Your task to perform on an android device: Clear the cart on walmart. Add "acer nitro" to the cart on walmart Image 0: 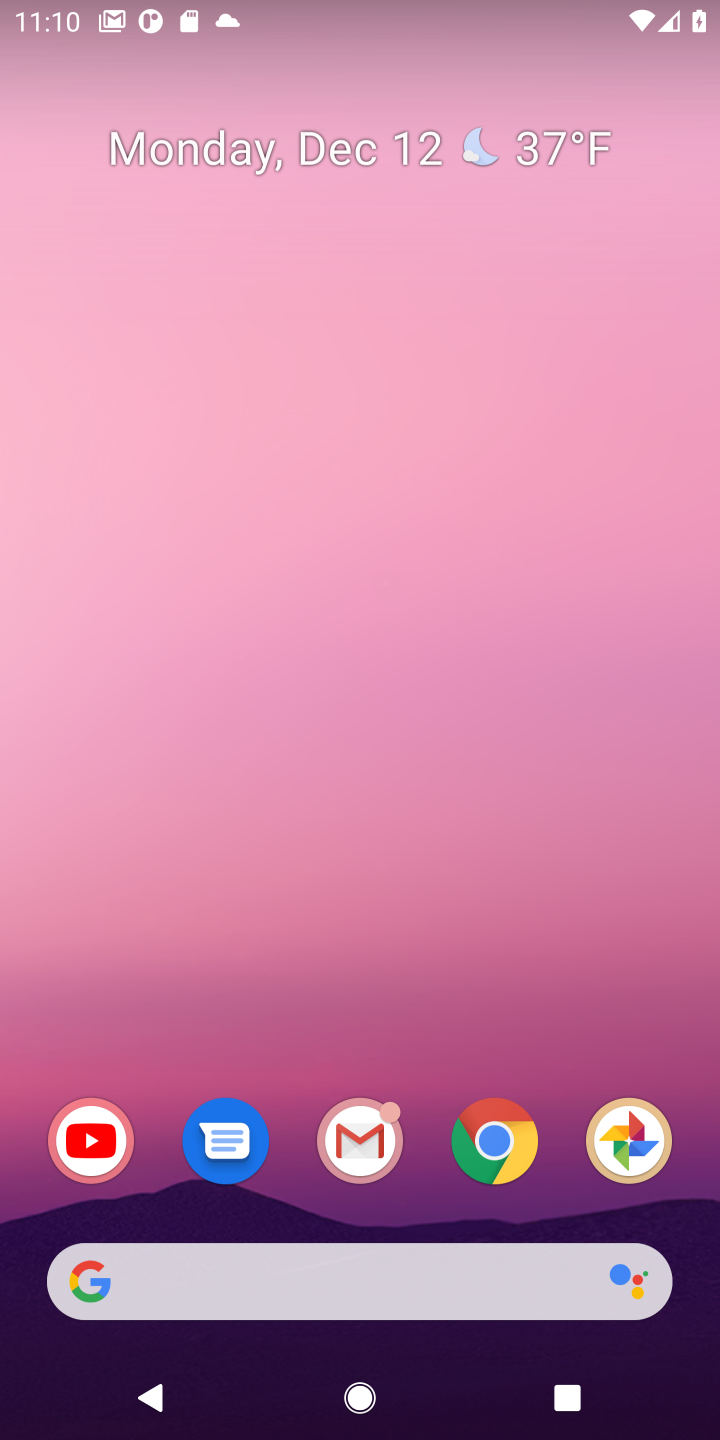
Step 0: click (409, 1295)
Your task to perform on an android device: Clear the cart on walmart. Add "acer nitro" to the cart on walmart Image 1: 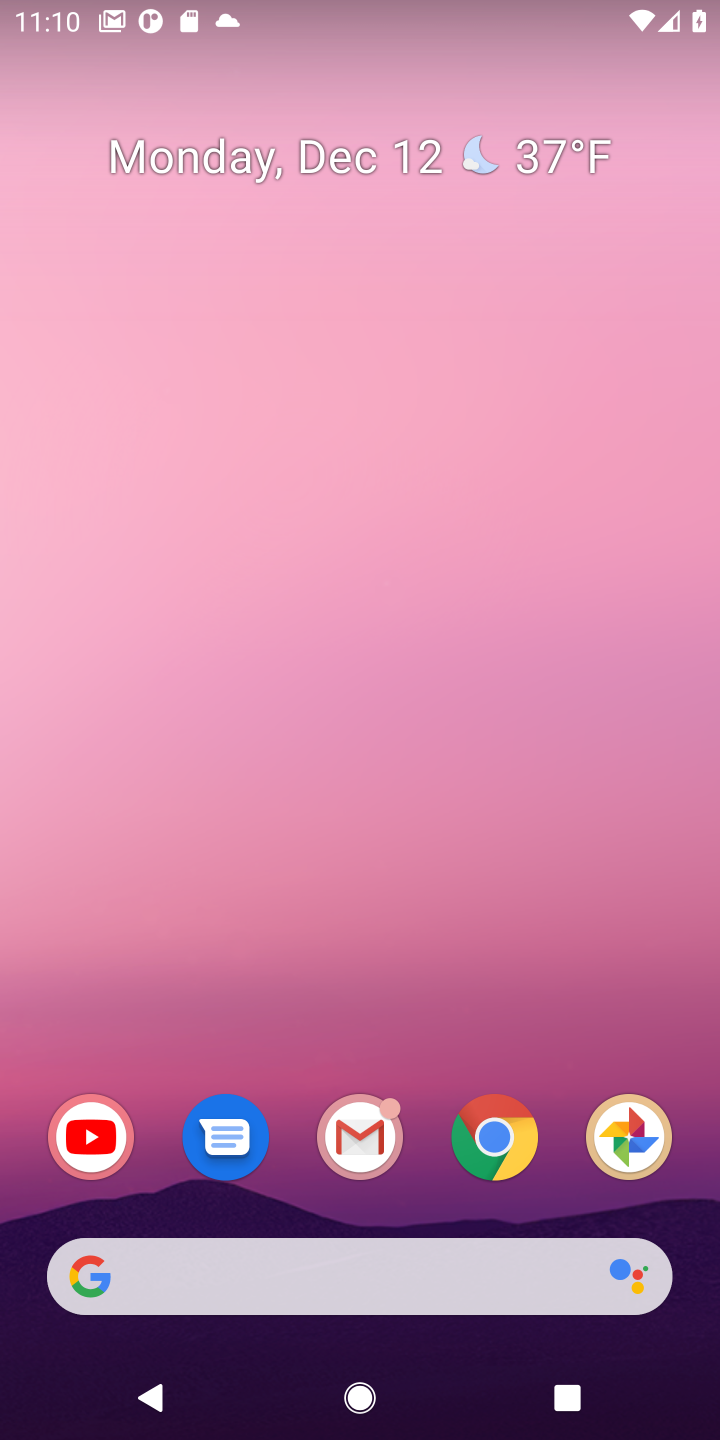
Step 1: type ""
Your task to perform on an android device: Clear the cart on walmart. Add "acer nitro" to the cart on walmart Image 2: 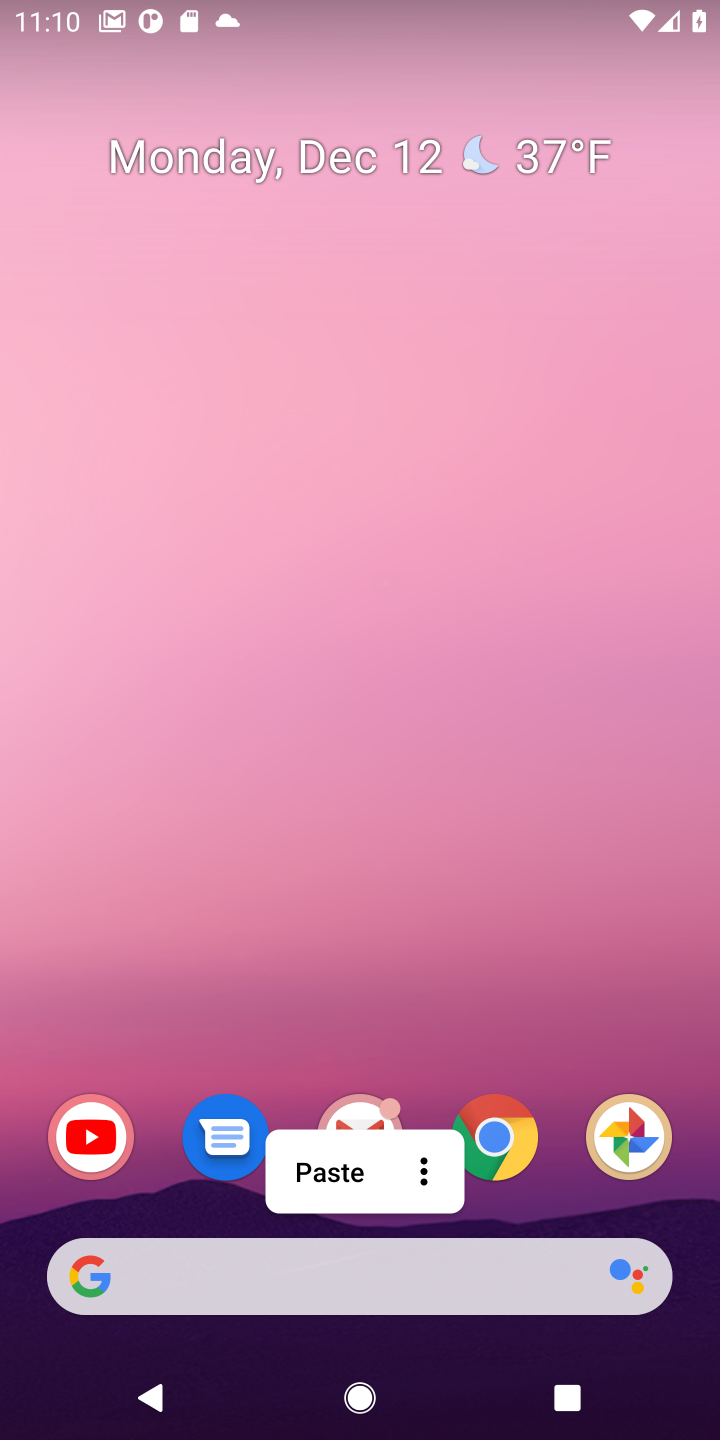
Step 2: click (375, 1257)
Your task to perform on an android device: Clear the cart on walmart. Add "acer nitro" to the cart on walmart Image 3: 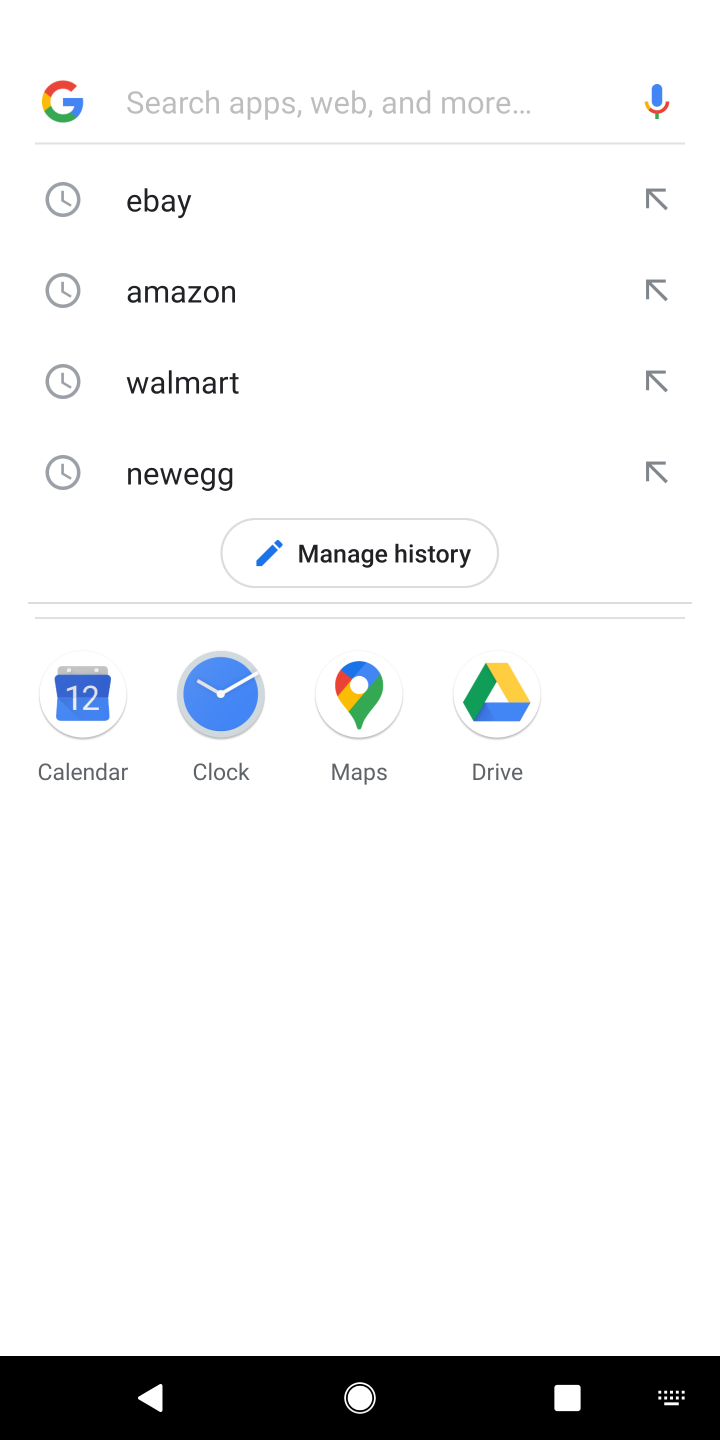
Step 3: click (187, 402)
Your task to perform on an android device: Clear the cart on walmart. Add "acer nitro" to the cart on walmart Image 4: 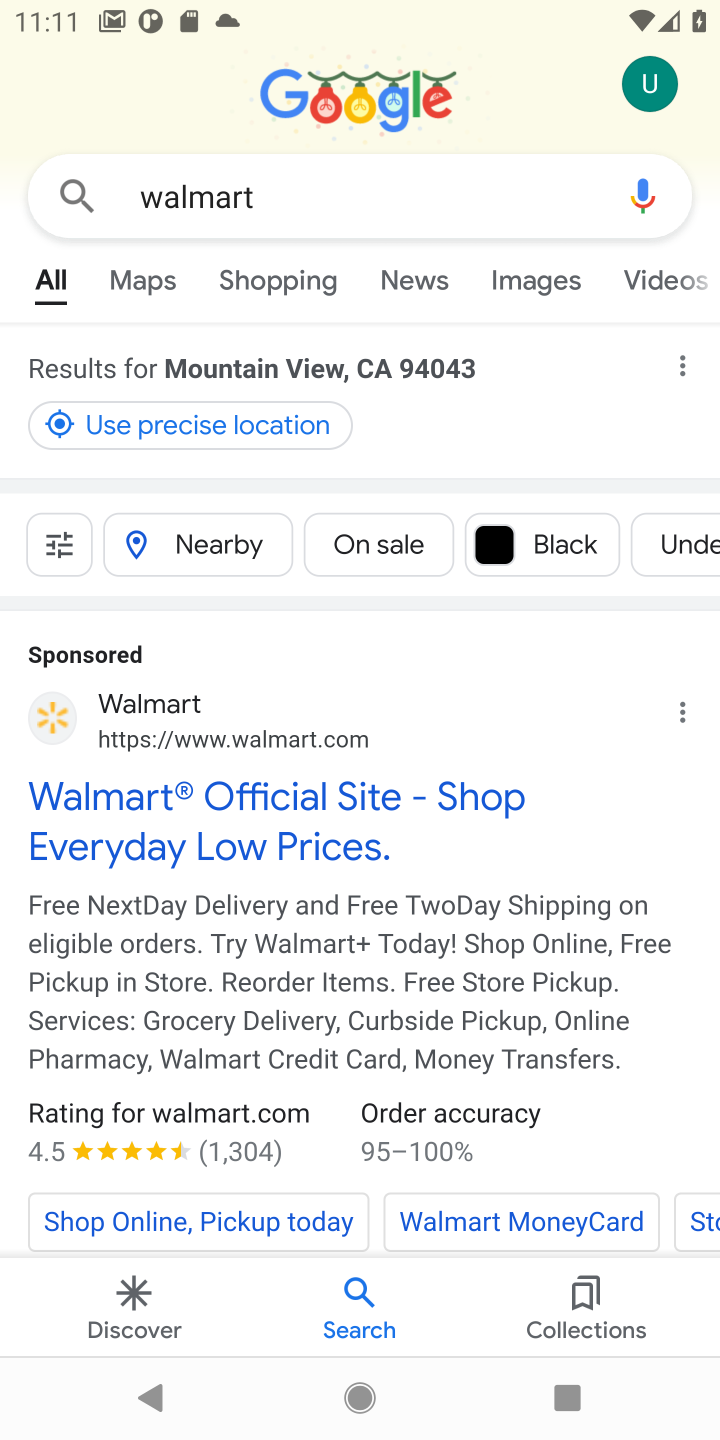
Step 4: click (157, 838)
Your task to perform on an android device: Clear the cart on walmart. Add "acer nitro" to the cart on walmart Image 5: 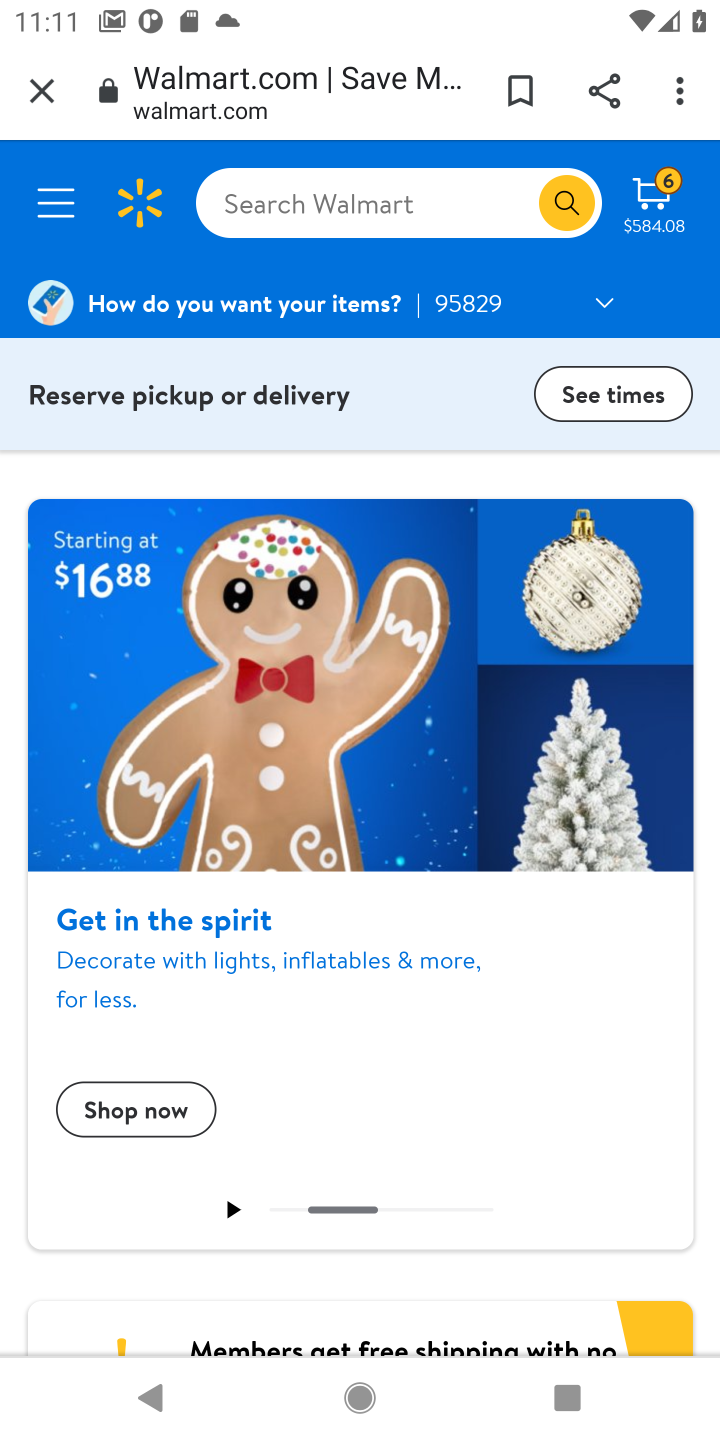
Step 5: click (359, 197)
Your task to perform on an android device: Clear the cart on walmart. Add "acer nitro" to the cart on walmart Image 6: 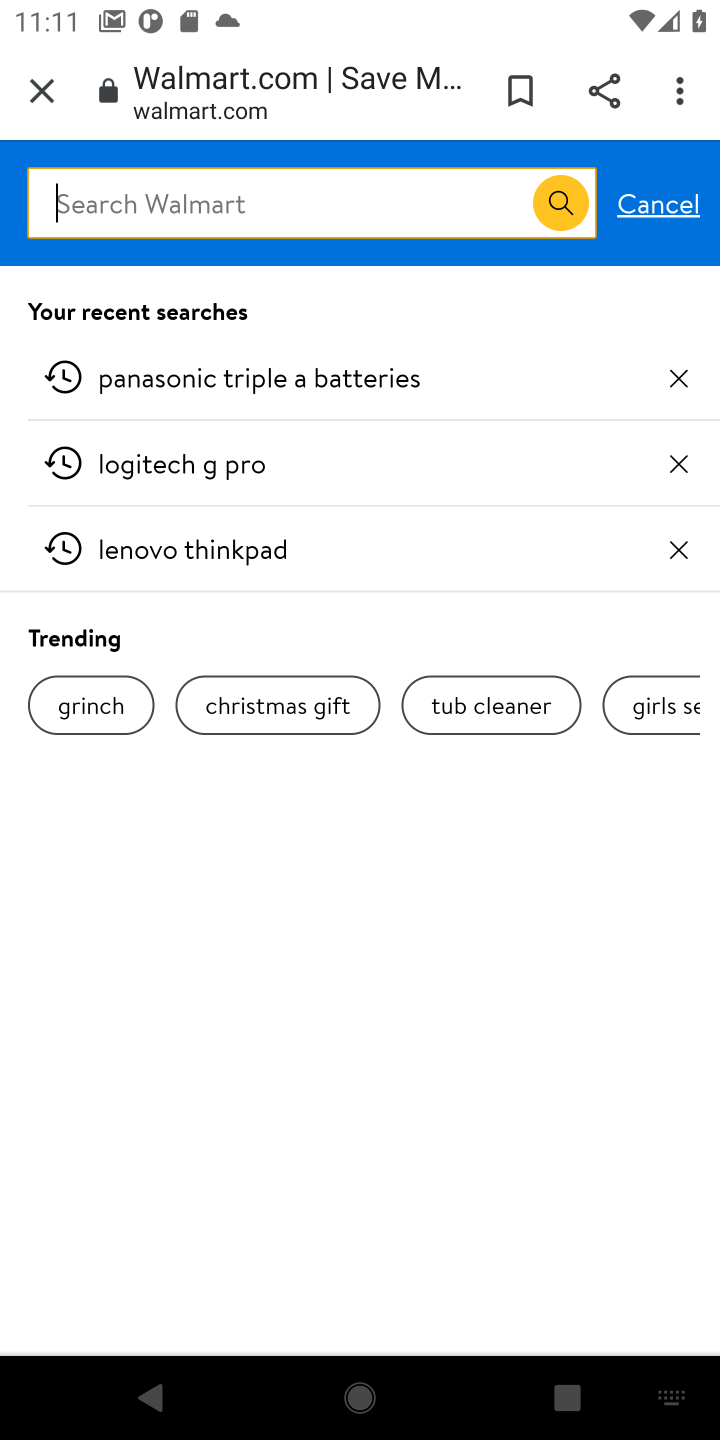
Step 6: type "acer nitro"
Your task to perform on an android device: Clear the cart on walmart. Add "acer nitro" to the cart on walmart Image 7: 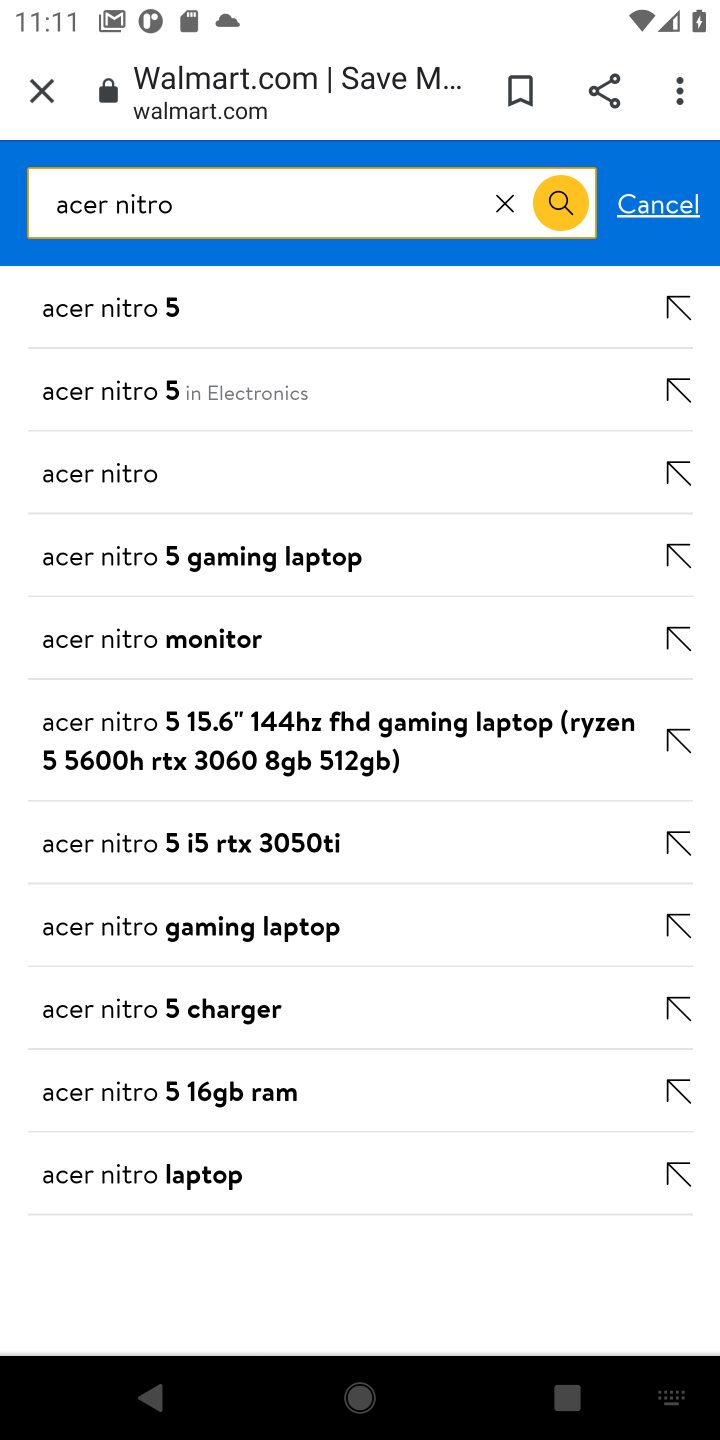
Step 7: click (128, 478)
Your task to perform on an android device: Clear the cart on walmart. Add "acer nitro" to the cart on walmart Image 8: 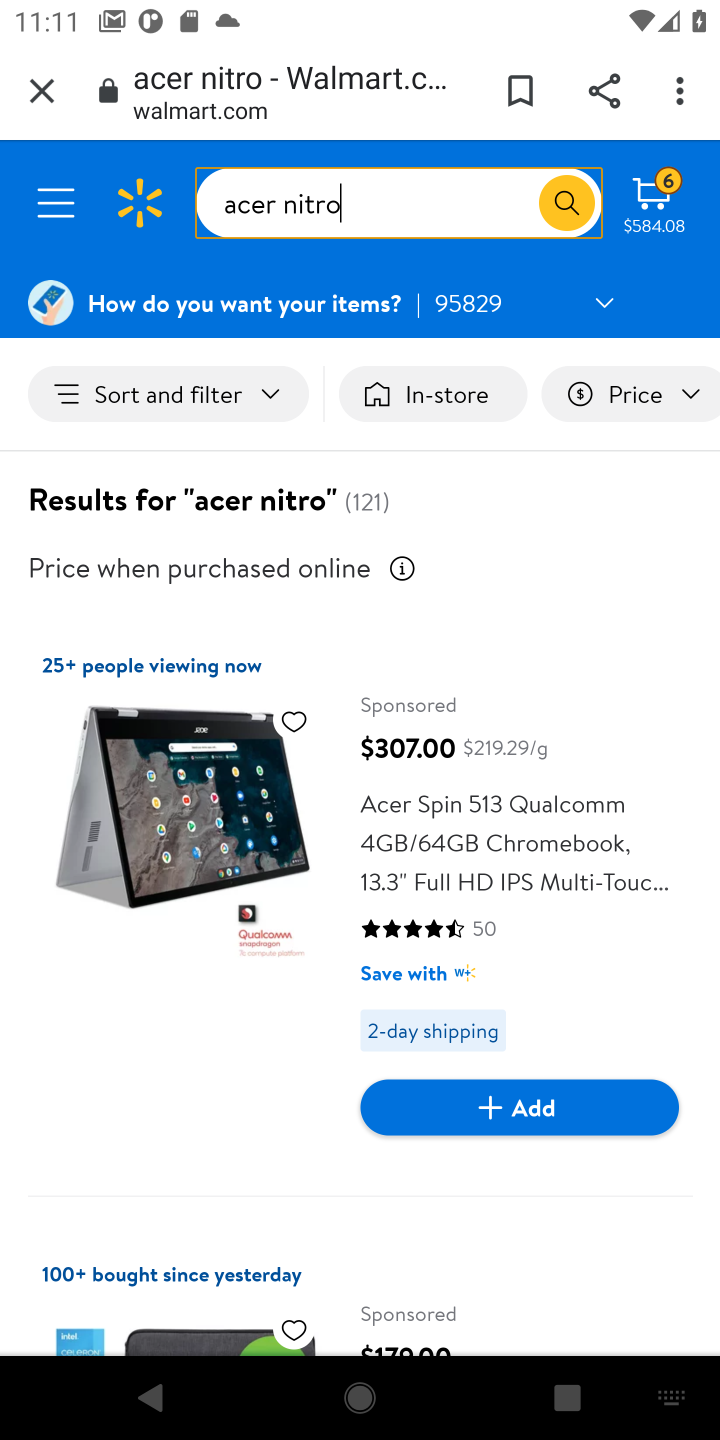
Step 8: click (469, 1086)
Your task to perform on an android device: Clear the cart on walmart. Add "acer nitro" to the cart on walmart Image 9: 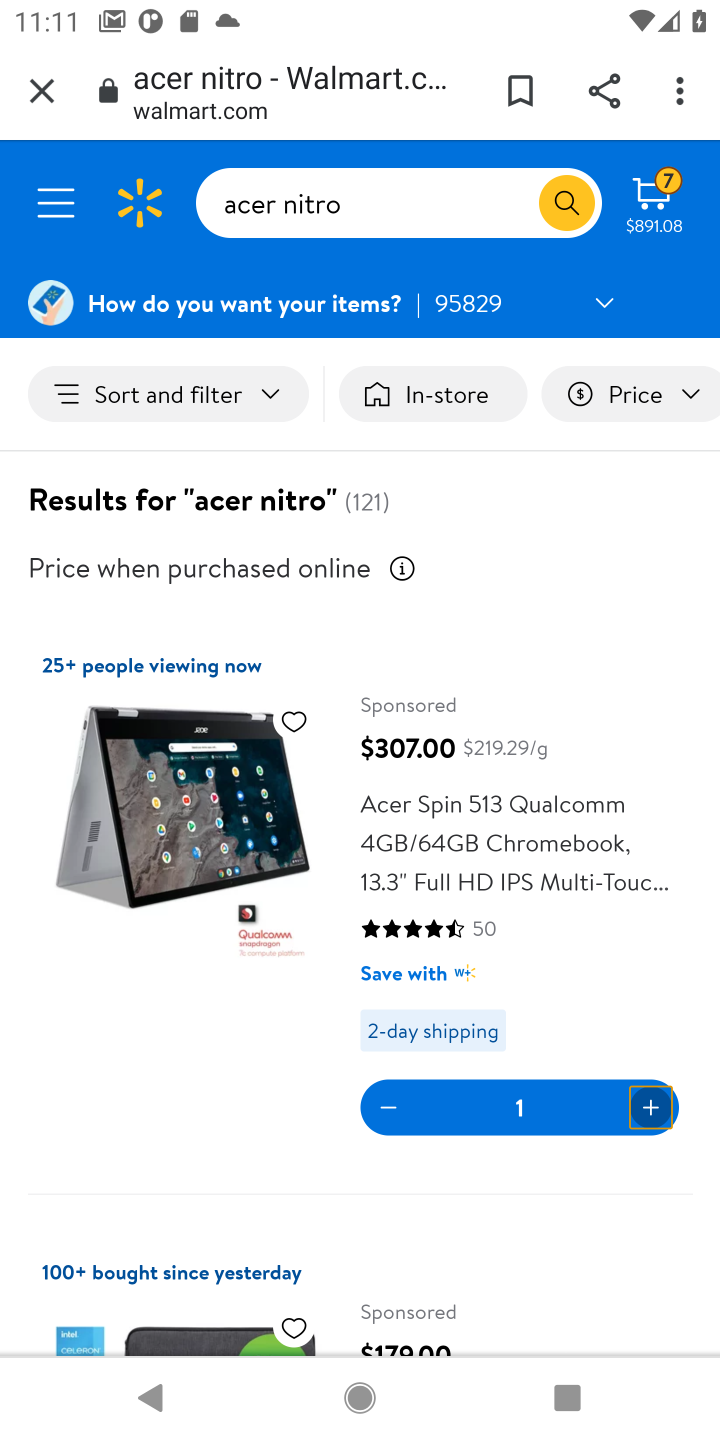
Step 9: task complete